Your task to perform on an android device: turn on notifications settings in the gmail app Image 0: 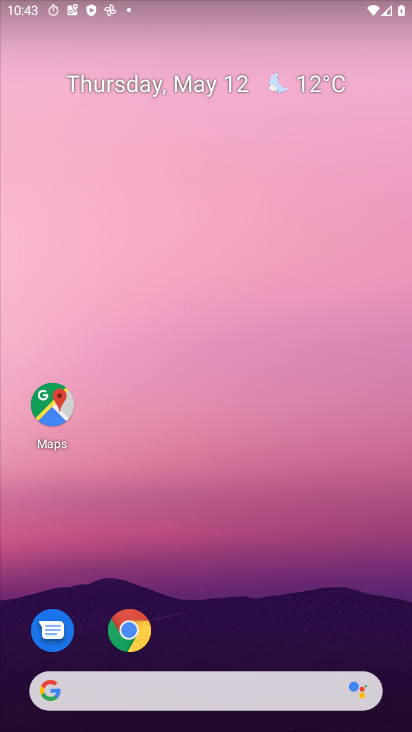
Step 0: drag from (194, 652) to (184, 266)
Your task to perform on an android device: turn on notifications settings in the gmail app Image 1: 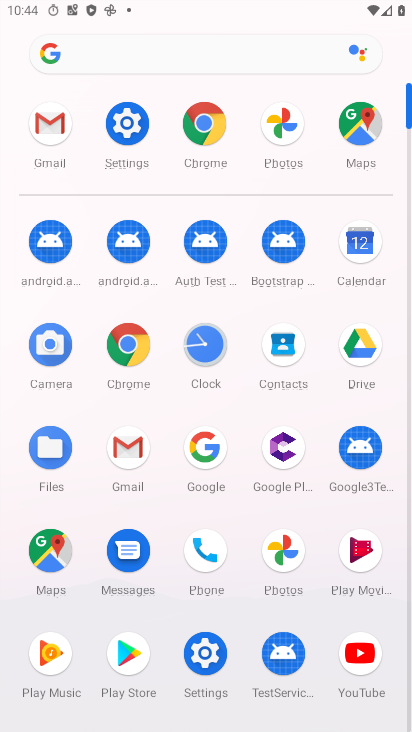
Step 1: click (126, 461)
Your task to perform on an android device: turn on notifications settings in the gmail app Image 2: 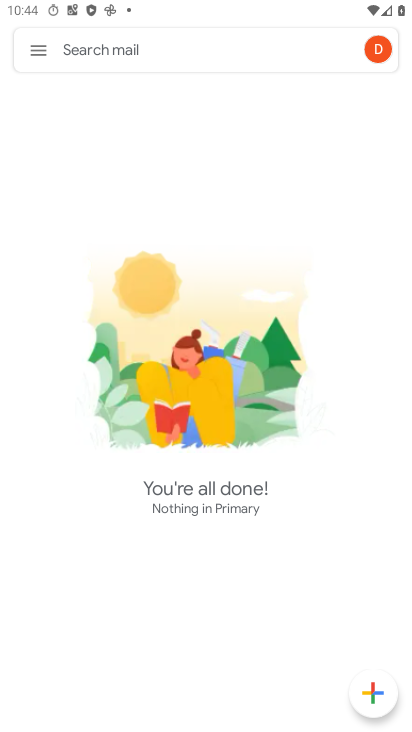
Step 2: click (39, 57)
Your task to perform on an android device: turn on notifications settings in the gmail app Image 3: 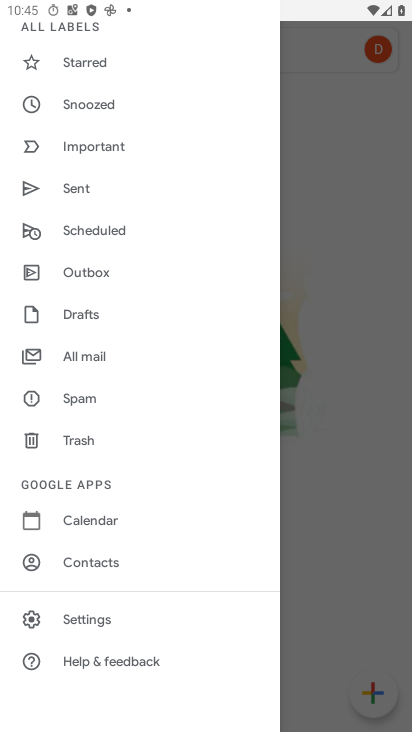
Step 3: click (69, 622)
Your task to perform on an android device: turn on notifications settings in the gmail app Image 4: 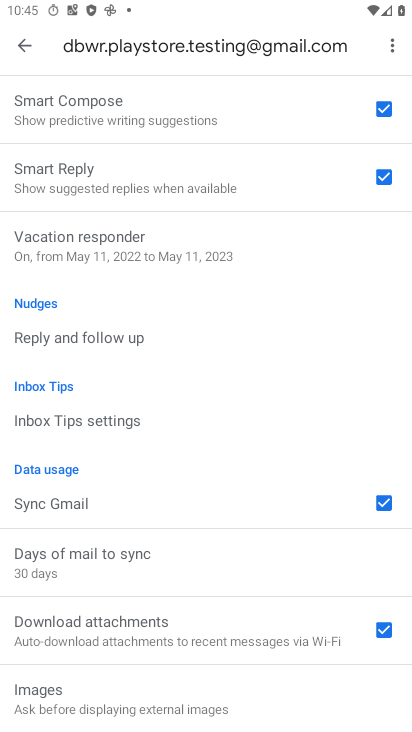
Step 4: drag from (85, 404) to (4, 4)
Your task to perform on an android device: turn on notifications settings in the gmail app Image 5: 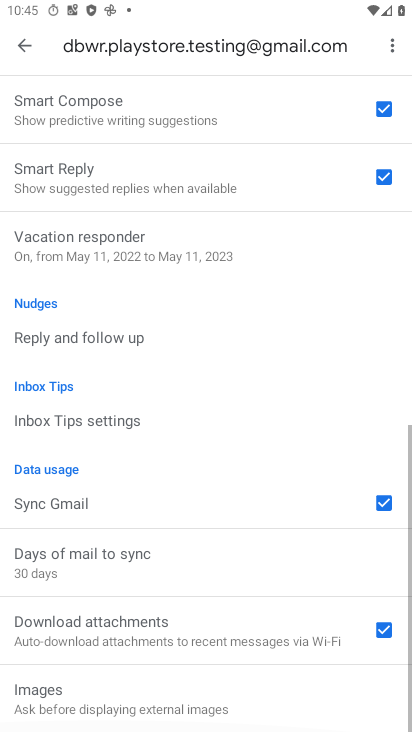
Step 5: drag from (57, 213) to (167, 729)
Your task to perform on an android device: turn on notifications settings in the gmail app Image 6: 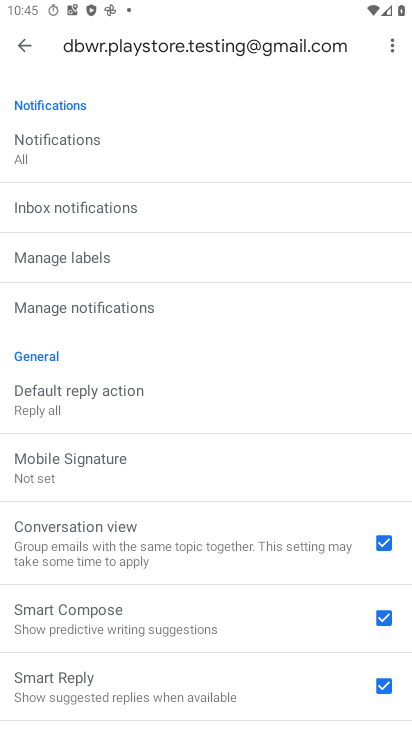
Step 6: click (106, 298)
Your task to perform on an android device: turn on notifications settings in the gmail app Image 7: 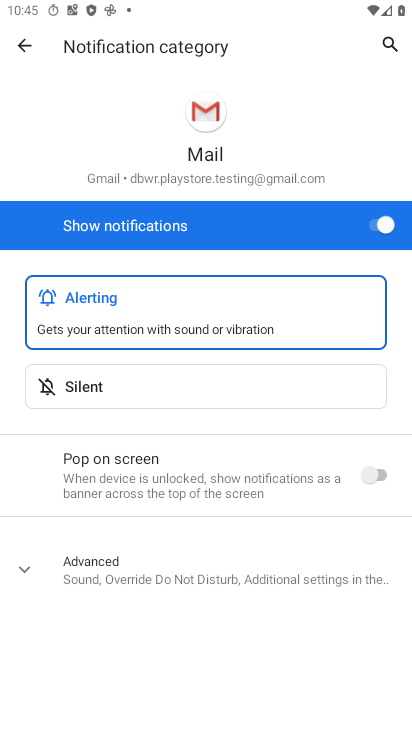
Step 7: task complete